Your task to perform on an android device: Search for sushi restaurants on Maps Image 0: 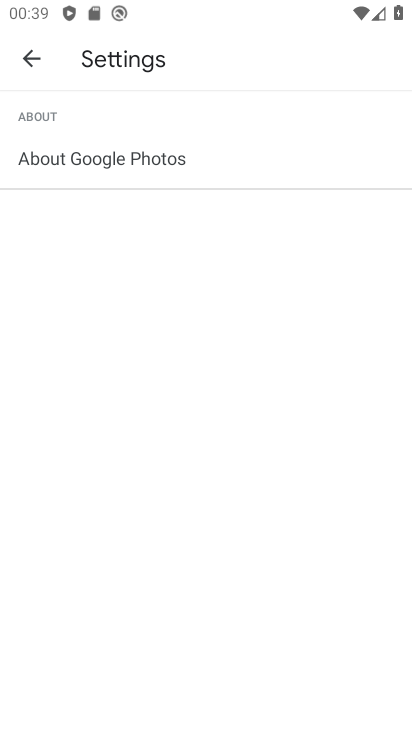
Step 0: press home button
Your task to perform on an android device: Search for sushi restaurants on Maps Image 1: 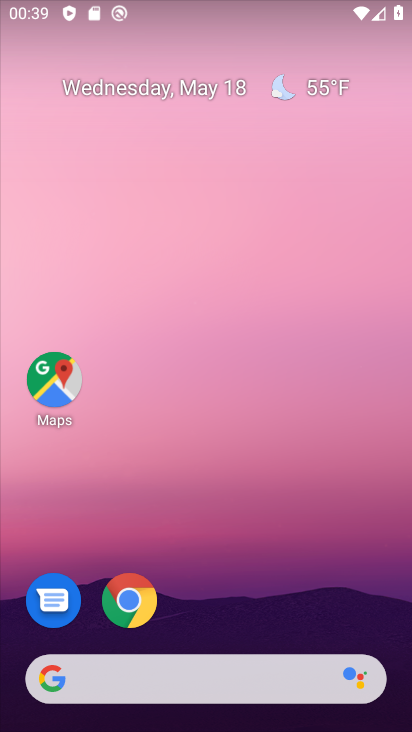
Step 1: click (43, 367)
Your task to perform on an android device: Search for sushi restaurants on Maps Image 2: 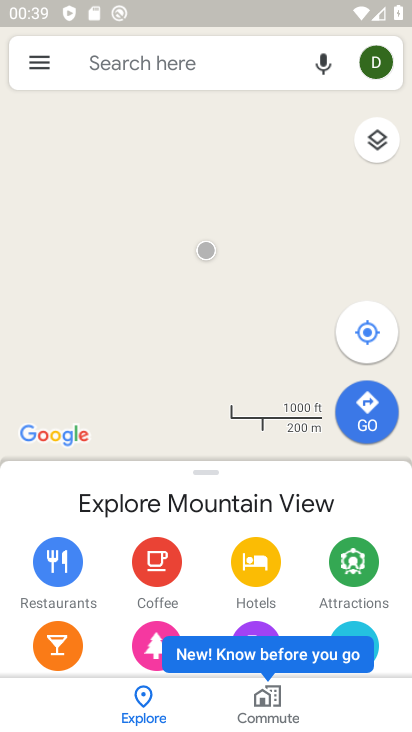
Step 2: click (181, 66)
Your task to perform on an android device: Search for sushi restaurants on Maps Image 3: 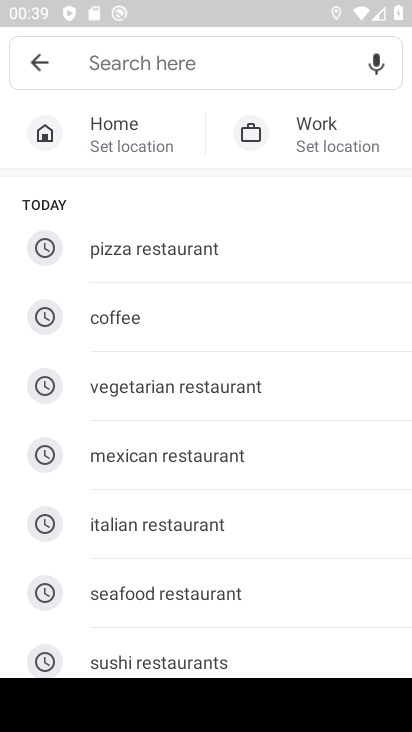
Step 3: click (157, 656)
Your task to perform on an android device: Search for sushi restaurants on Maps Image 4: 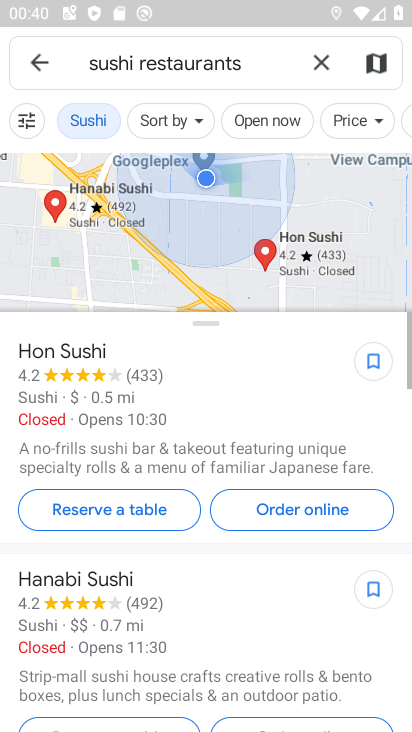
Step 4: task complete